Your task to perform on an android device: see sites visited before in the chrome app Image 0: 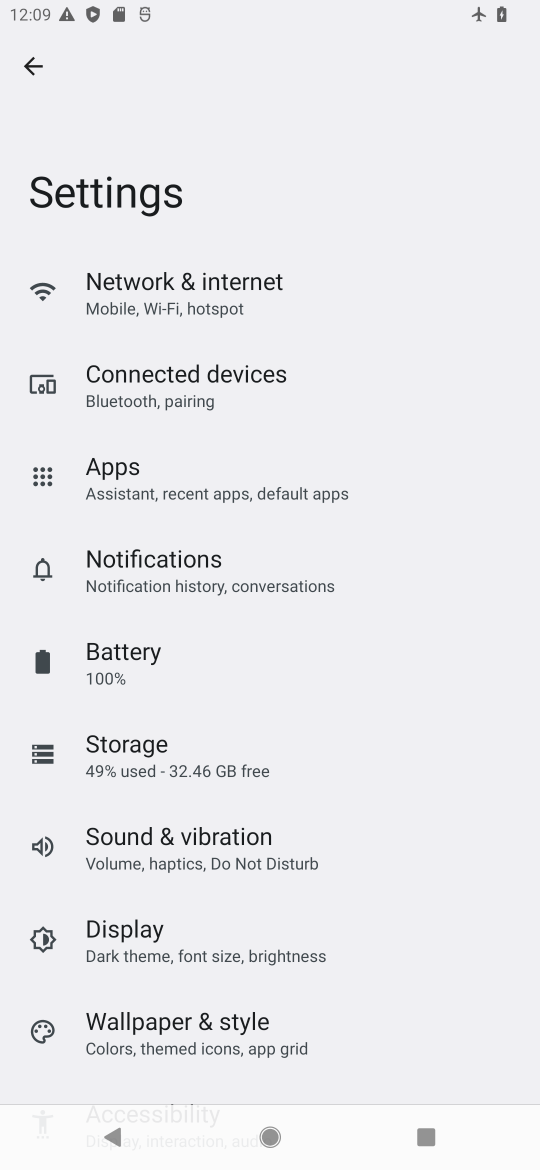
Step 0: press home button
Your task to perform on an android device: see sites visited before in the chrome app Image 1: 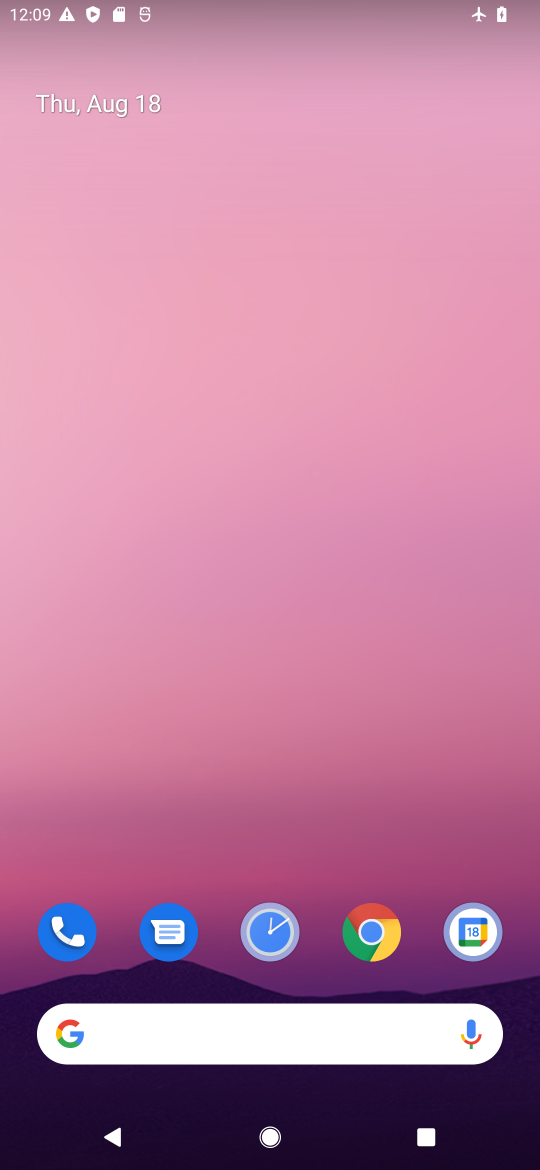
Step 1: click (372, 934)
Your task to perform on an android device: see sites visited before in the chrome app Image 2: 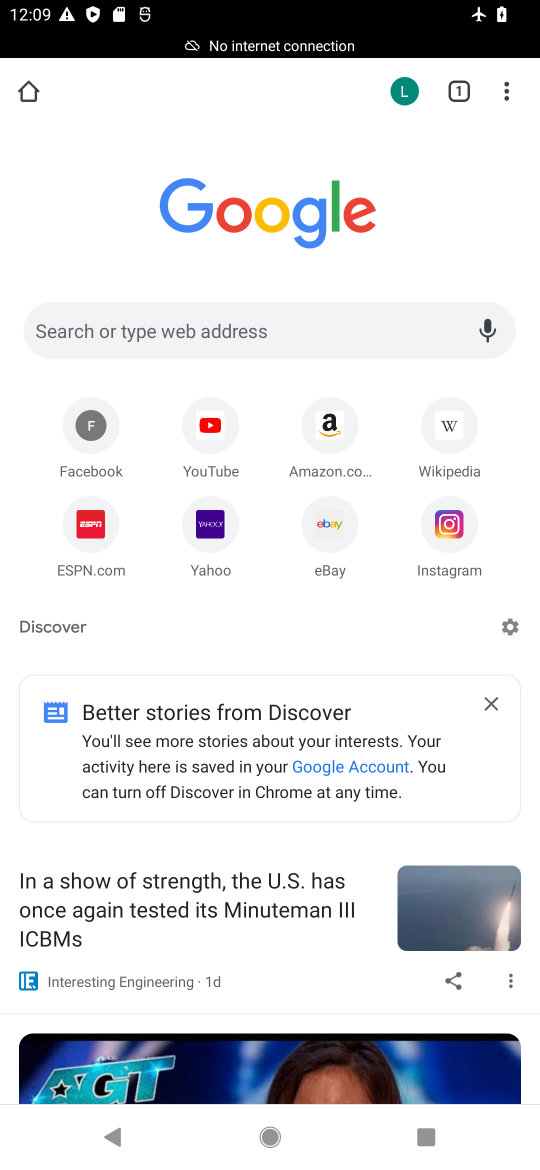
Step 2: click (506, 98)
Your task to perform on an android device: see sites visited before in the chrome app Image 3: 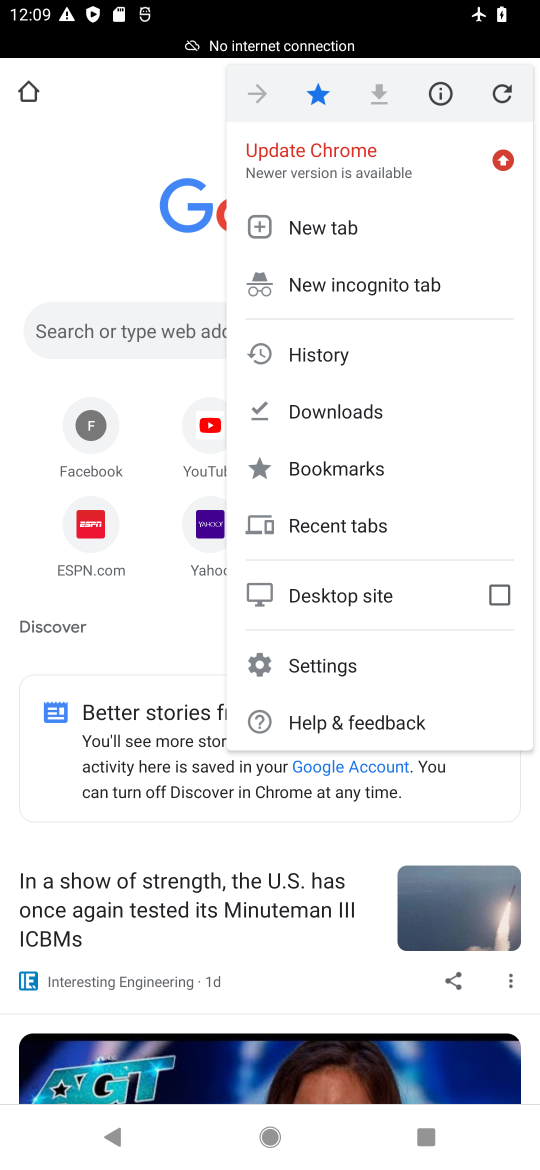
Step 3: click (326, 349)
Your task to perform on an android device: see sites visited before in the chrome app Image 4: 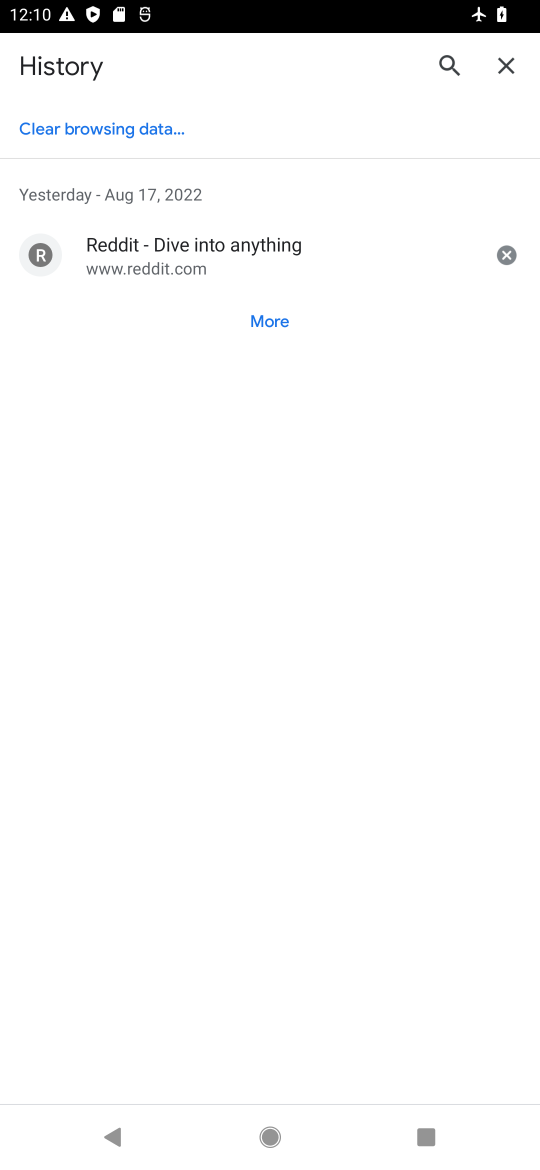
Step 4: task complete